Your task to perform on an android device: find which apps use the phone's location Image 0: 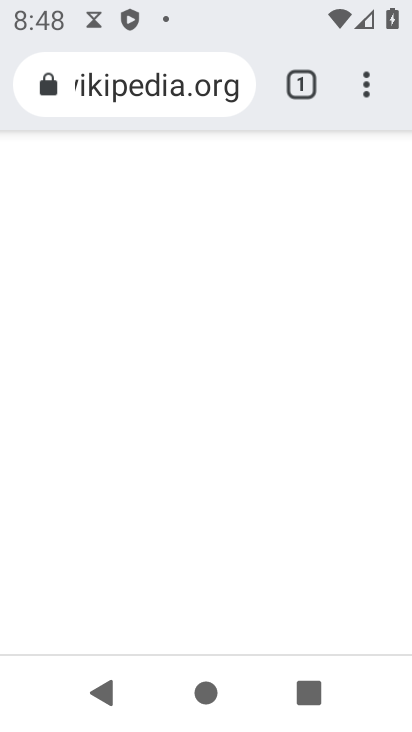
Step 0: press home button
Your task to perform on an android device: find which apps use the phone's location Image 1: 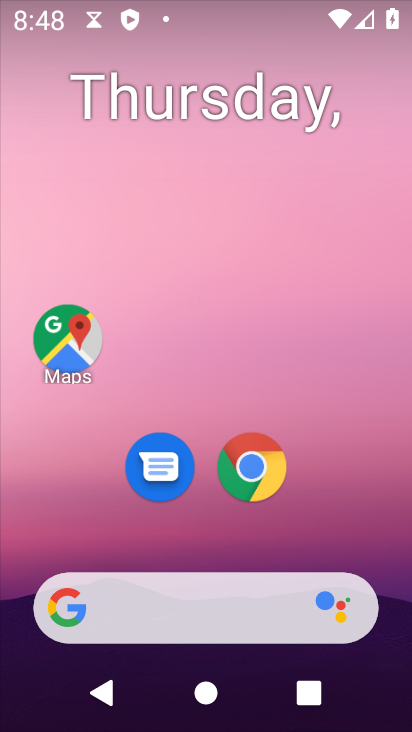
Step 1: drag from (343, 546) to (306, 51)
Your task to perform on an android device: find which apps use the phone's location Image 2: 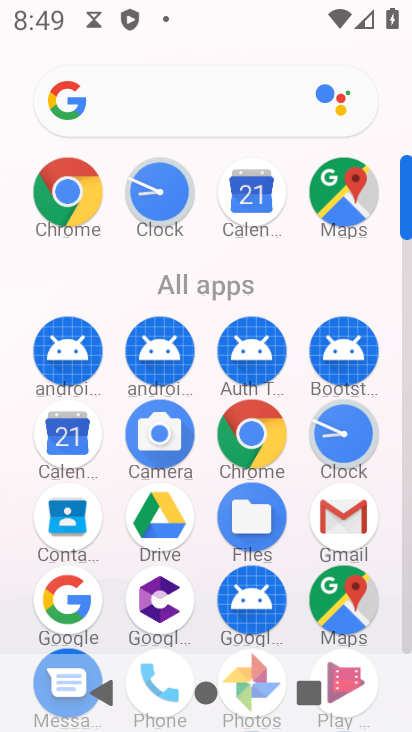
Step 2: drag from (293, 608) to (273, 253)
Your task to perform on an android device: find which apps use the phone's location Image 3: 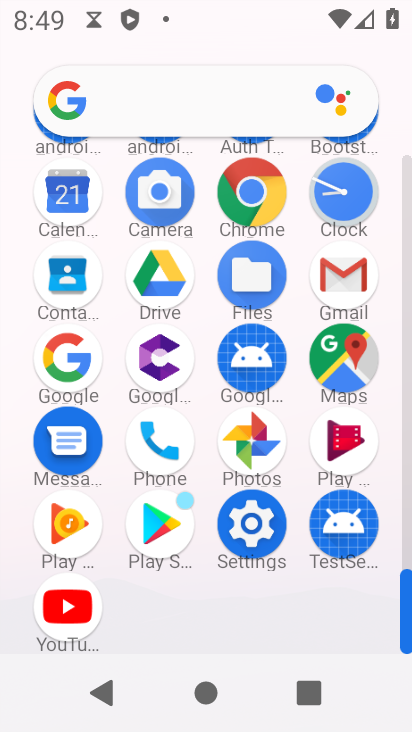
Step 3: click (251, 522)
Your task to perform on an android device: find which apps use the phone's location Image 4: 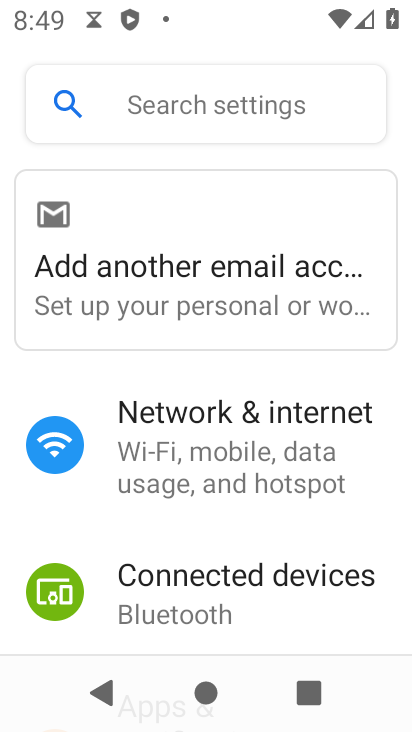
Step 4: drag from (163, 580) to (175, 510)
Your task to perform on an android device: find which apps use the phone's location Image 5: 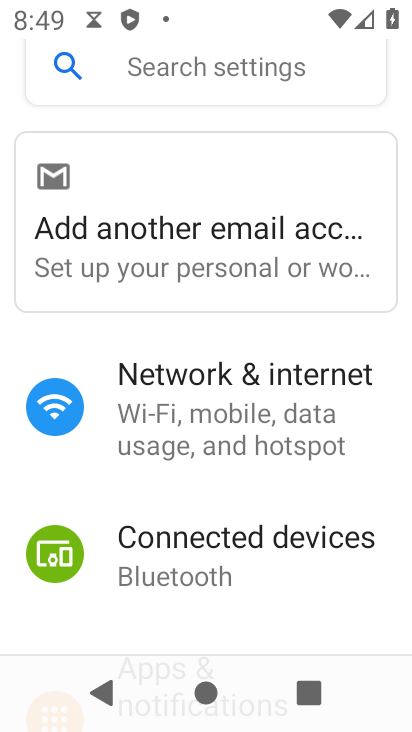
Step 5: drag from (182, 584) to (181, 495)
Your task to perform on an android device: find which apps use the phone's location Image 6: 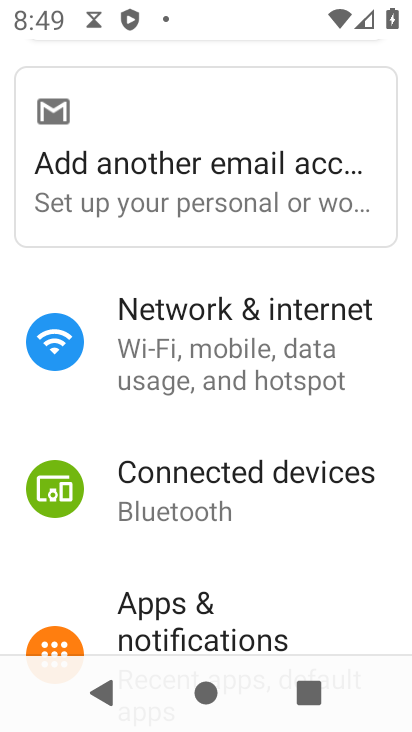
Step 6: drag from (217, 591) to (206, 500)
Your task to perform on an android device: find which apps use the phone's location Image 7: 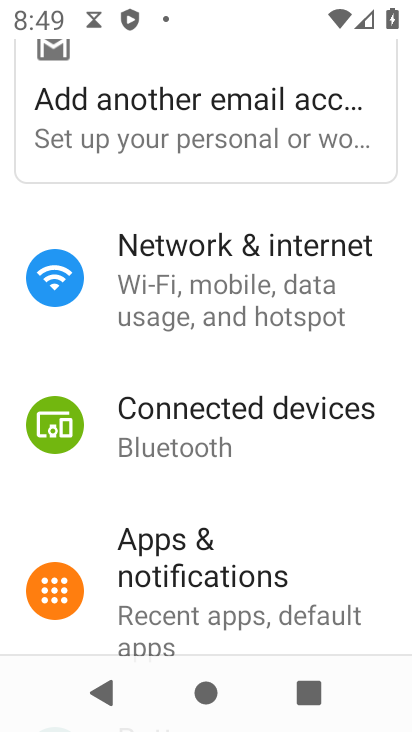
Step 7: drag from (190, 588) to (213, 507)
Your task to perform on an android device: find which apps use the phone's location Image 8: 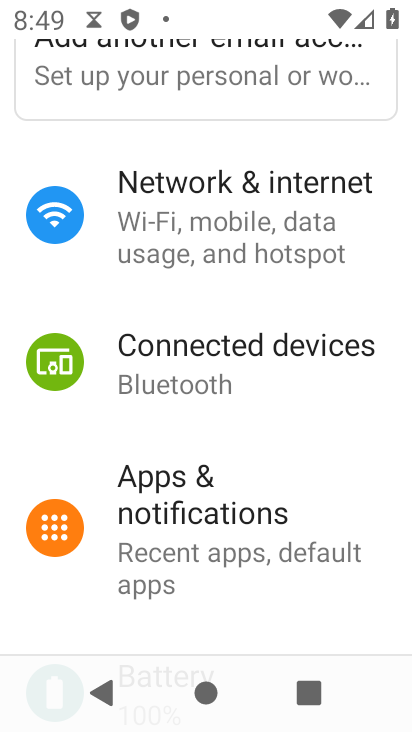
Step 8: drag from (187, 578) to (182, 483)
Your task to perform on an android device: find which apps use the phone's location Image 9: 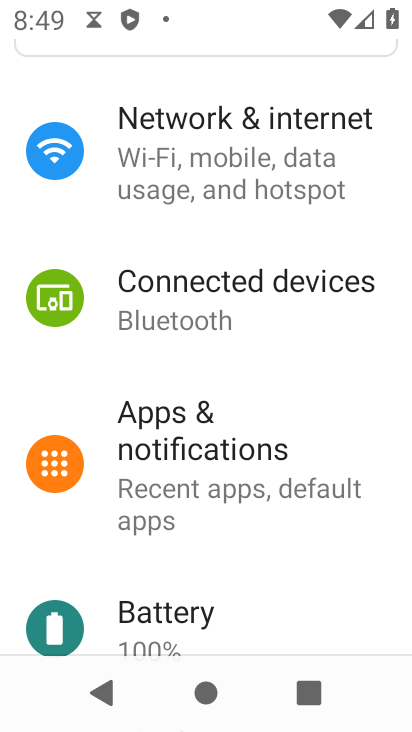
Step 9: drag from (180, 585) to (179, 474)
Your task to perform on an android device: find which apps use the phone's location Image 10: 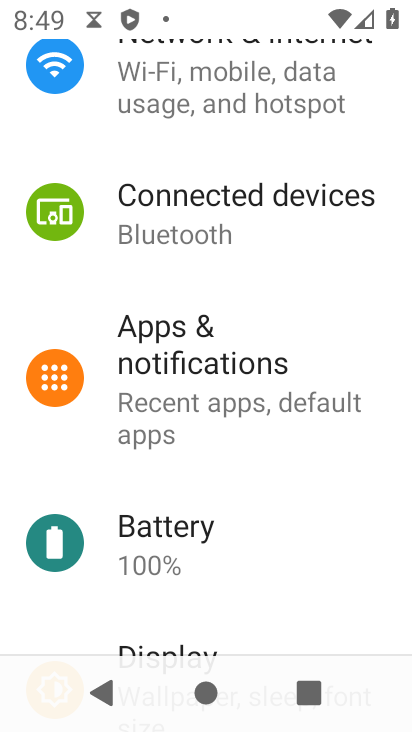
Step 10: drag from (175, 565) to (171, 464)
Your task to perform on an android device: find which apps use the phone's location Image 11: 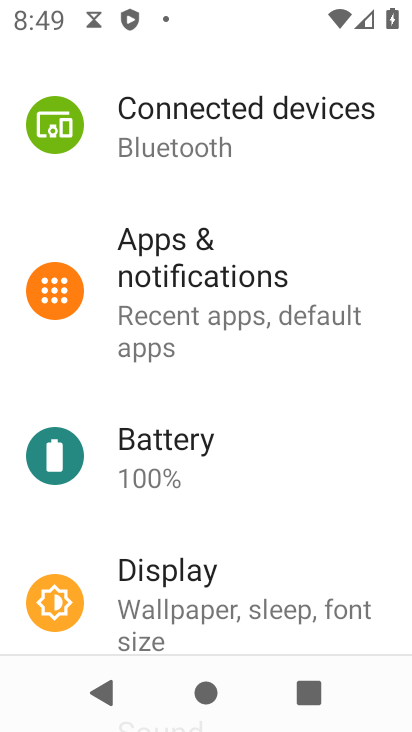
Step 11: drag from (196, 538) to (210, 453)
Your task to perform on an android device: find which apps use the phone's location Image 12: 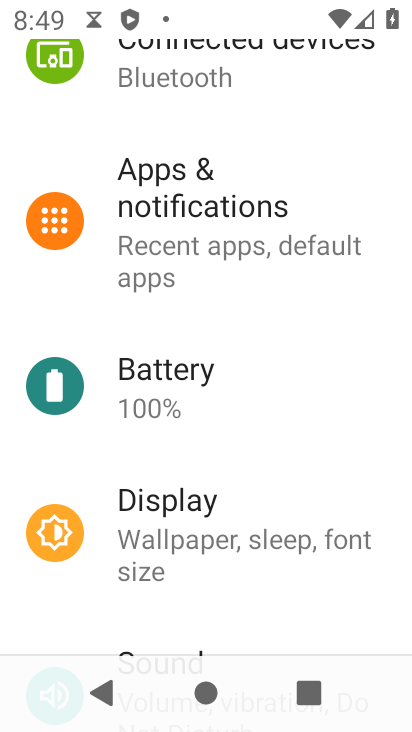
Step 12: drag from (185, 601) to (186, 507)
Your task to perform on an android device: find which apps use the phone's location Image 13: 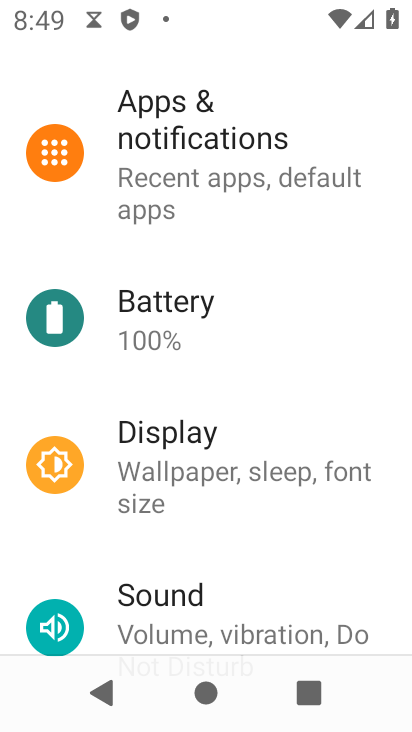
Step 13: drag from (191, 574) to (192, 499)
Your task to perform on an android device: find which apps use the phone's location Image 14: 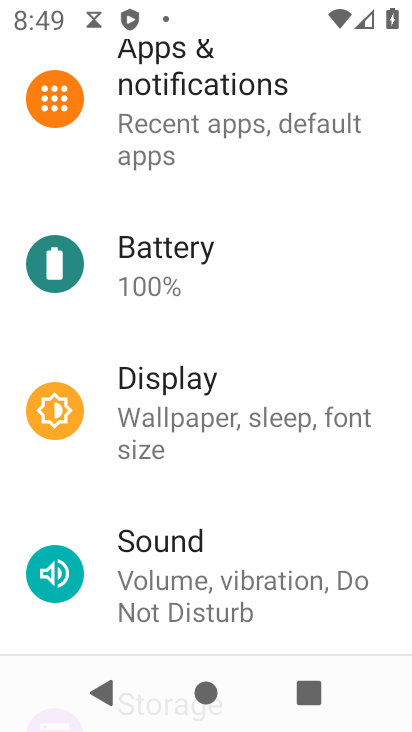
Step 14: drag from (196, 573) to (184, 478)
Your task to perform on an android device: find which apps use the phone's location Image 15: 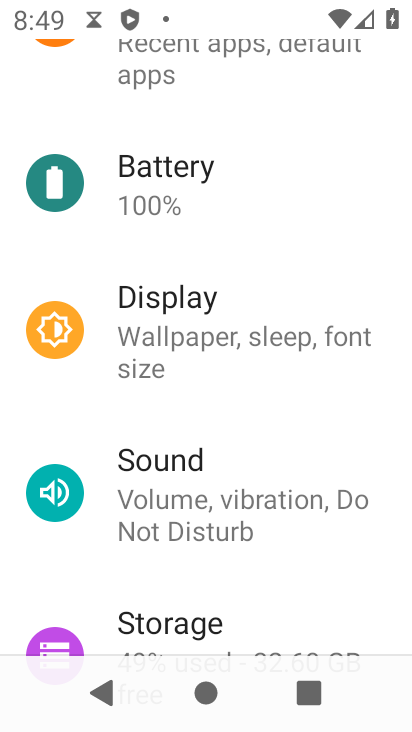
Step 15: drag from (195, 558) to (184, 454)
Your task to perform on an android device: find which apps use the phone's location Image 16: 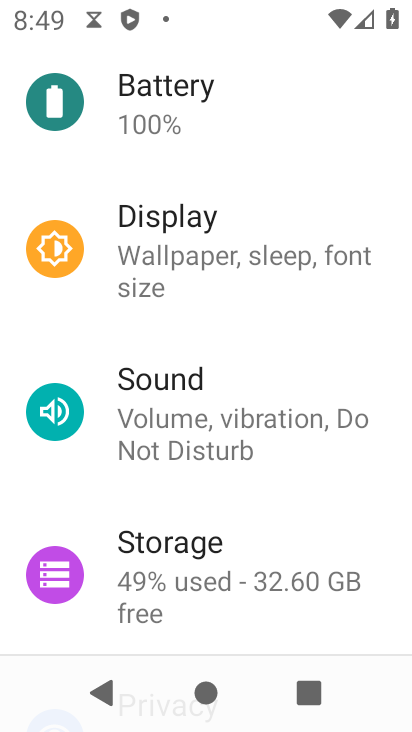
Step 16: drag from (188, 546) to (176, 455)
Your task to perform on an android device: find which apps use the phone's location Image 17: 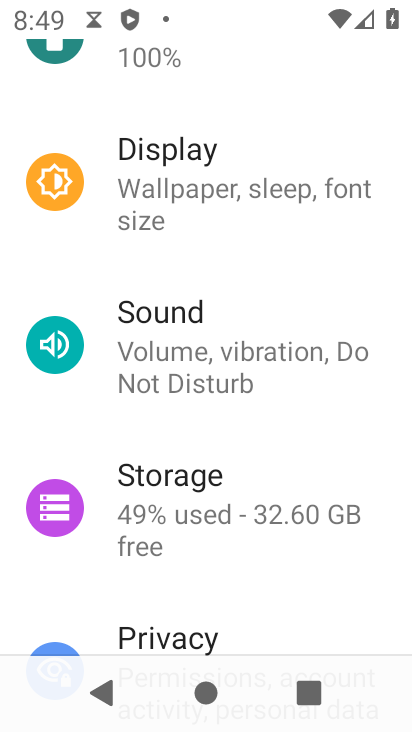
Step 17: drag from (174, 524) to (153, 459)
Your task to perform on an android device: find which apps use the phone's location Image 18: 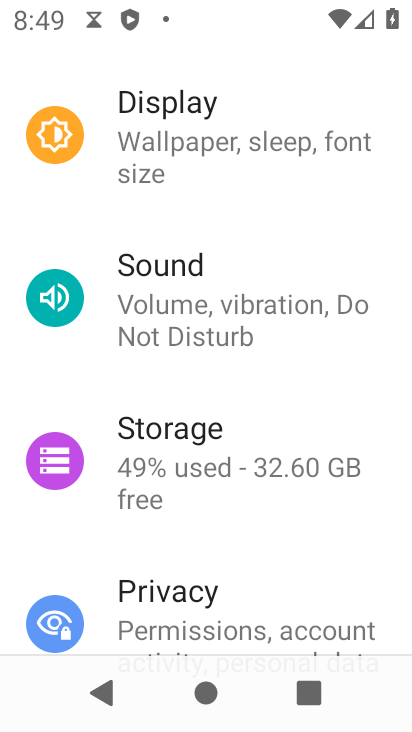
Step 18: drag from (161, 555) to (144, 420)
Your task to perform on an android device: find which apps use the phone's location Image 19: 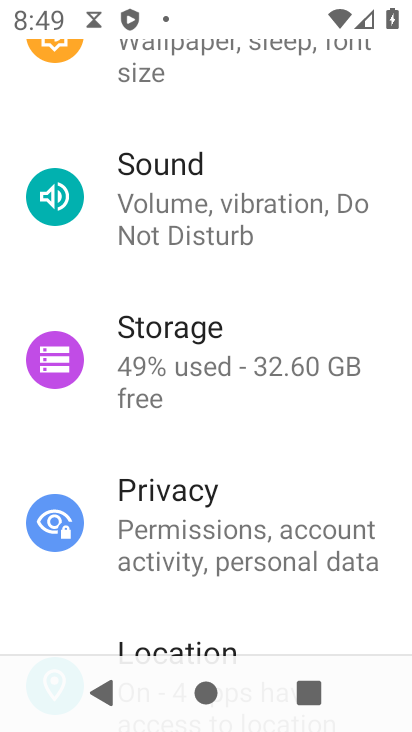
Step 19: drag from (158, 528) to (148, 434)
Your task to perform on an android device: find which apps use the phone's location Image 20: 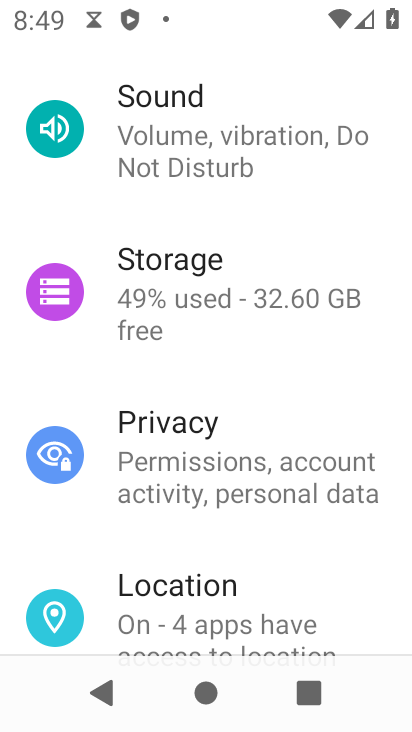
Step 20: click (194, 596)
Your task to perform on an android device: find which apps use the phone's location Image 21: 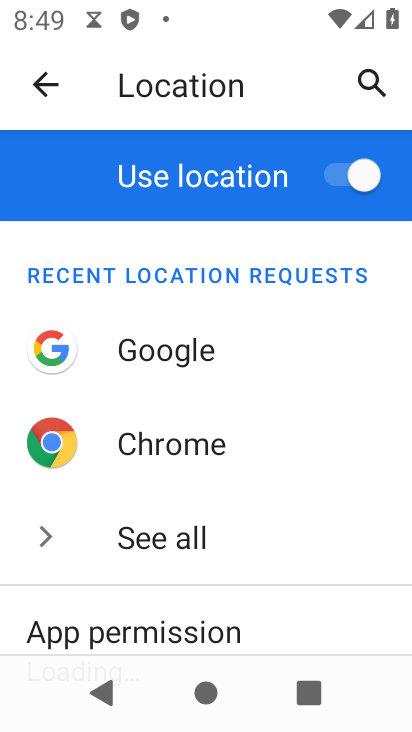
Step 21: click (195, 616)
Your task to perform on an android device: find which apps use the phone's location Image 22: 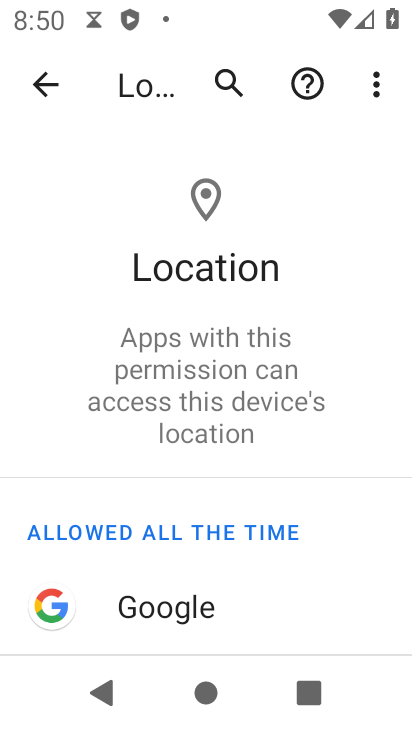
Step 22: task complete